Your task to perform on an android device: Open eBay Image 0: 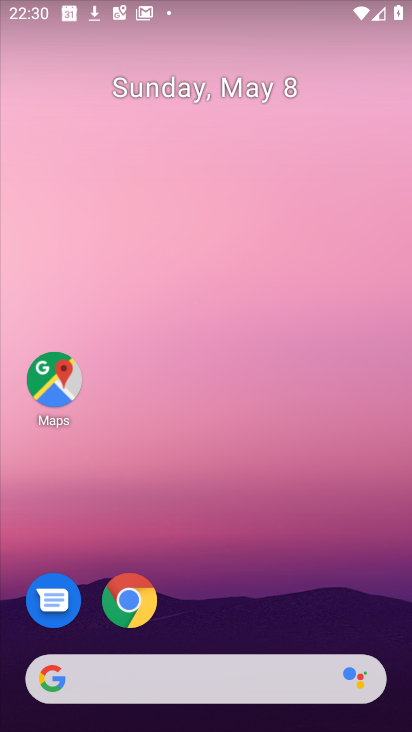
Step 0: drag from (298, 677) to (243, 181)
Your task to perform on an android device: Open eBay Image 1: 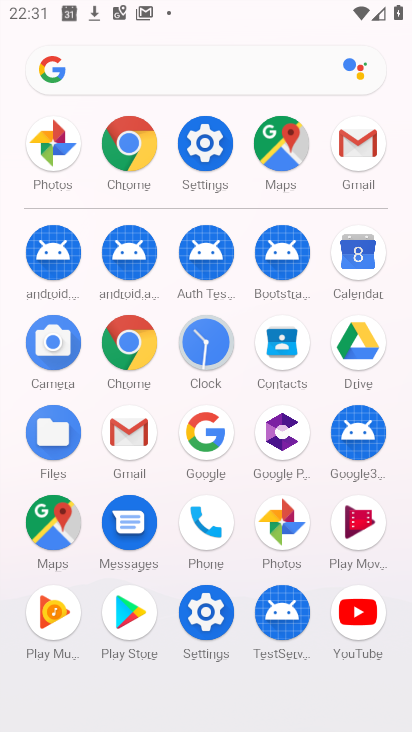
Step 1: click (121, 157)
Your task to perform on an android device: Open eBay Image 2: 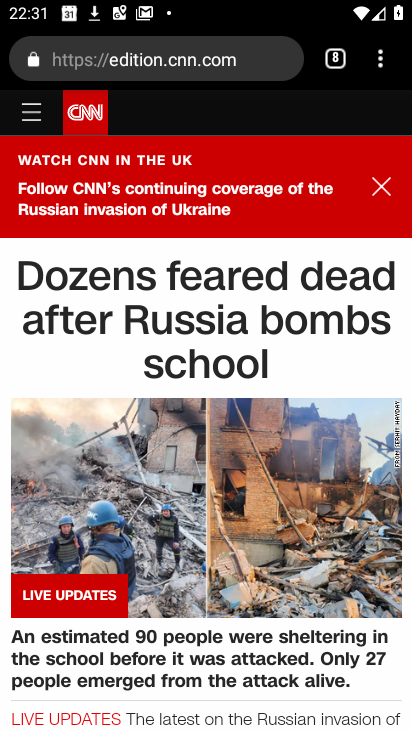
Step 2: click (197, 79)
Your task to perform on an android device: Open eBay Image 3: 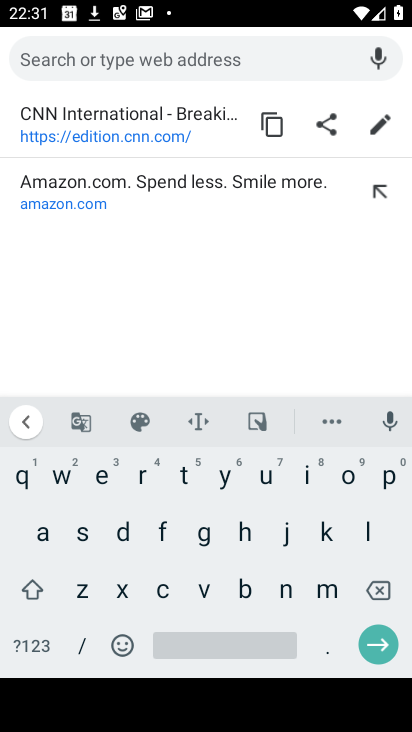
Step 3: click (97, 478)
Your task to perform on an android device: Open eBay Image 4: 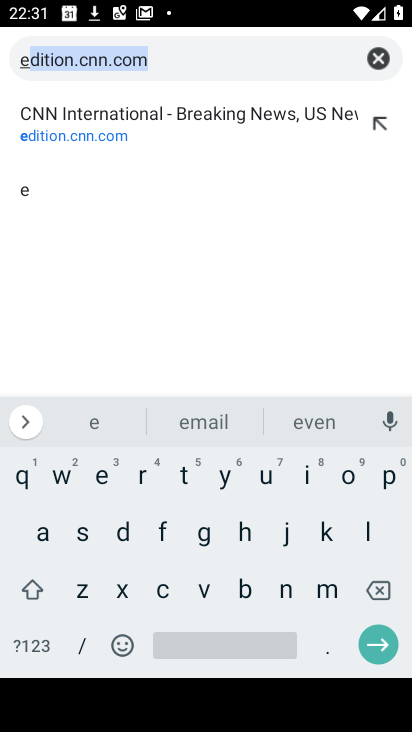
Step 4: click (244, 586)
Your task to perform on an android device: Open eBay Image 5: 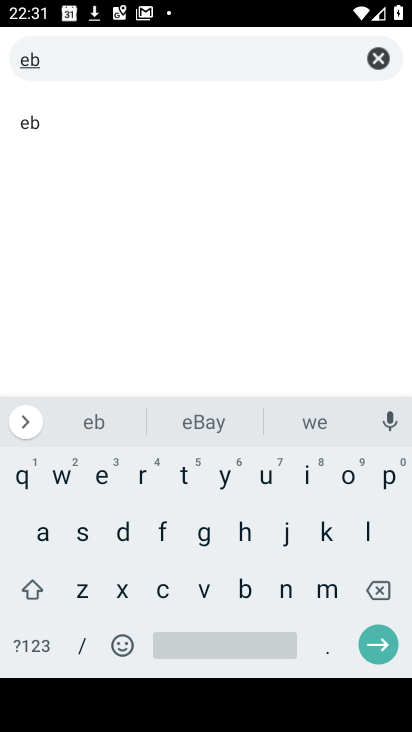
Step 5: click (37, 532)
Your task to perform on an android device: Open eBay Image 6: 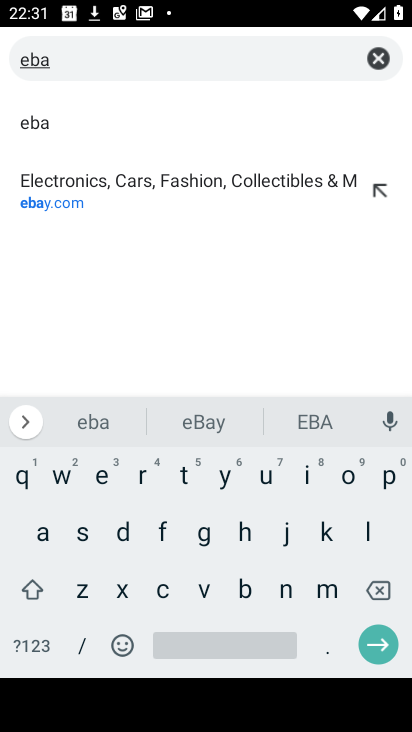
Step 6: click (225, 476)
Your task to perform on an android device: Open eBay Image 7: 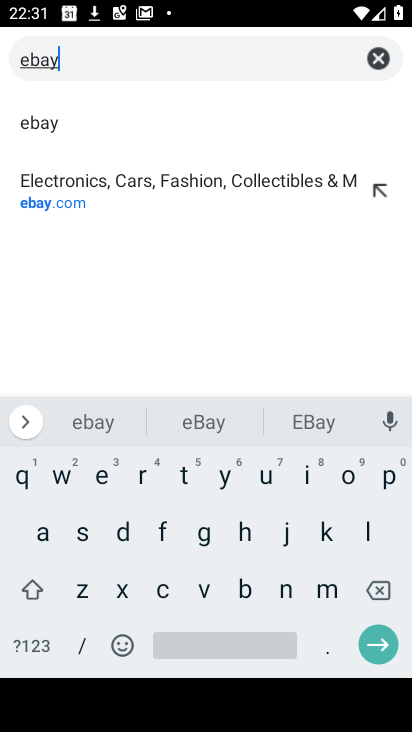
Step 7: click (95, 133)
Your task to perform on an android device: Open eBay Image 8: 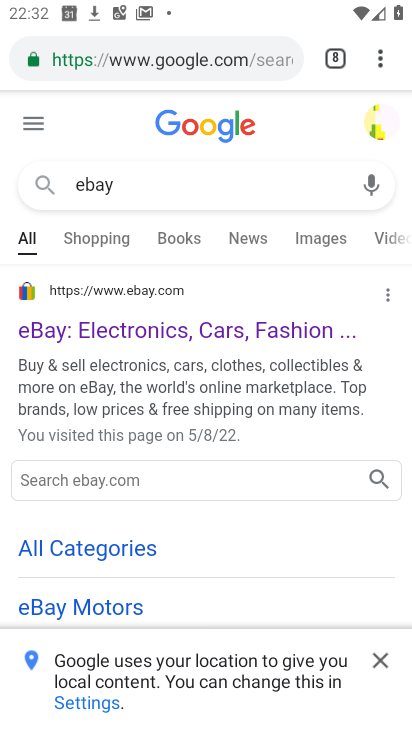
Step 8: click (106, 333)
Your task to perform on an android device: Open eBay Image 9: 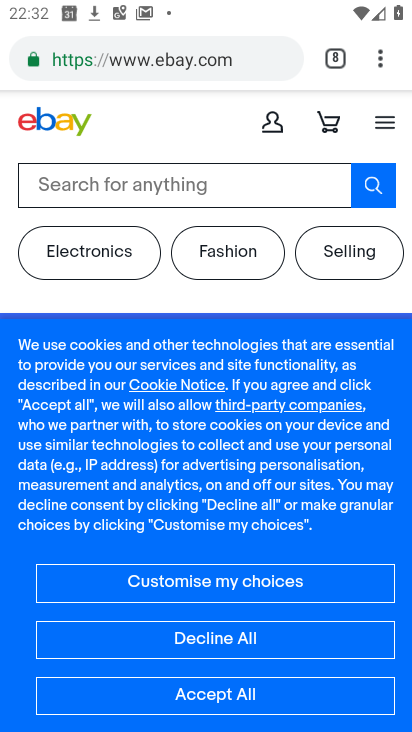
Step 9: task complete